Your task to perform on an android device: Go to display settings Image 0: 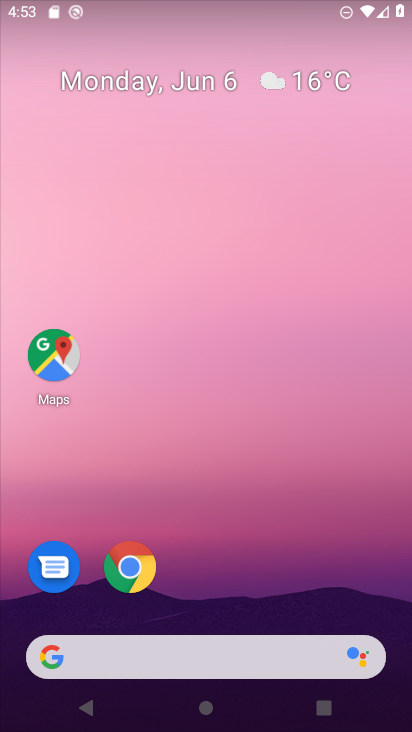
Step 0: drag from (233, 651) to (155, 172)
Your task to perform on an android device: Go to display settings Image 1: 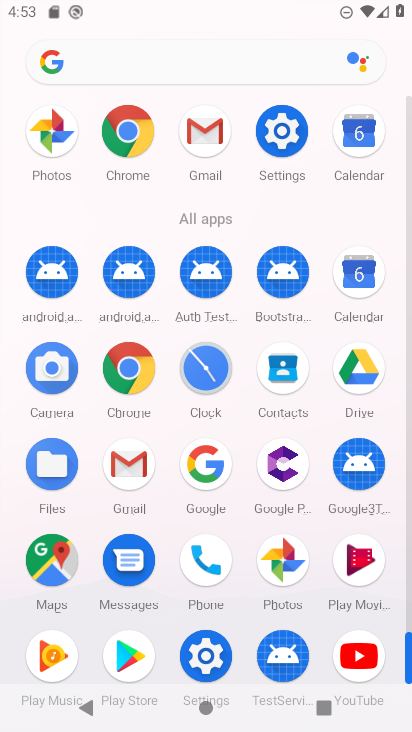
Step 1: click (287, 133)
Your task to perform on an android device: Go to display settings Image 2: 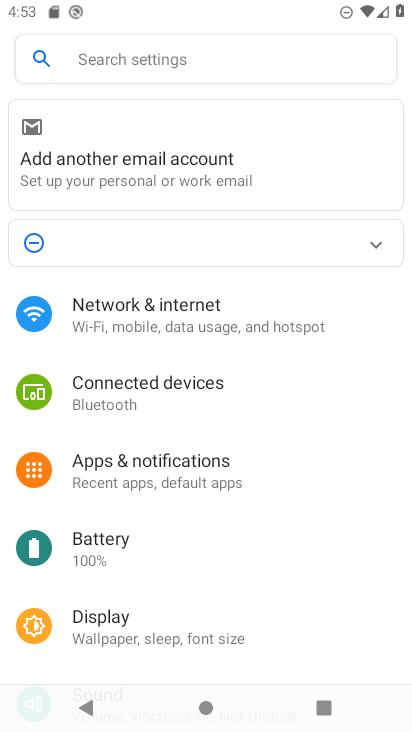
Step 2: drag from (116, 540) to (106, 170)
Your task to perform on an android device: Go to display settings Image 3: 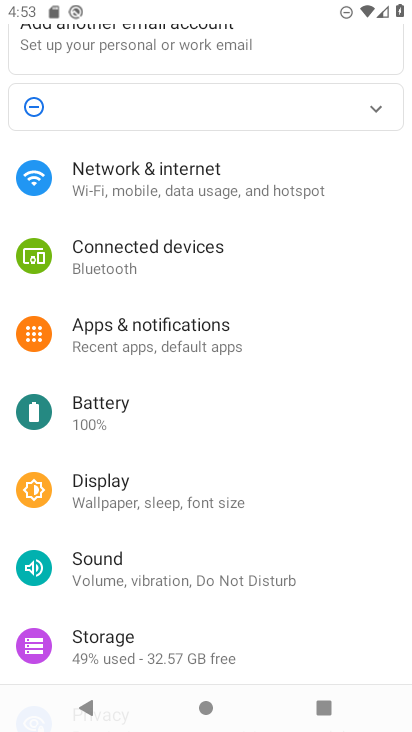
Step 3: drag from (105, 565) to (101, 309)
Your task to perform on an android device: Go to display settings Image 4: 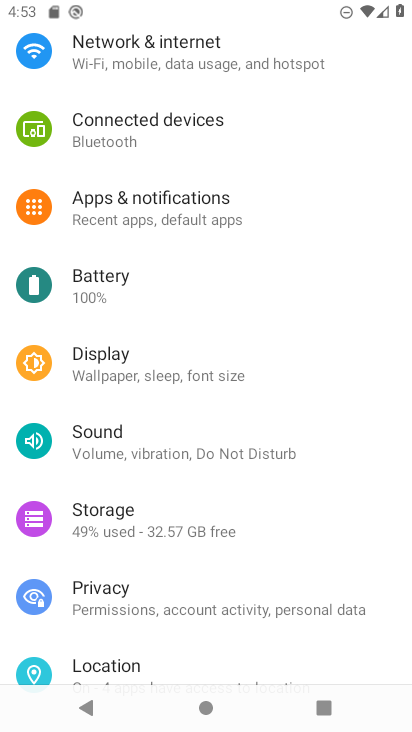
Step 4: drag from (128, 426) to (126, 309)
Your task to perform on an android device: Go to display settings Image 5: 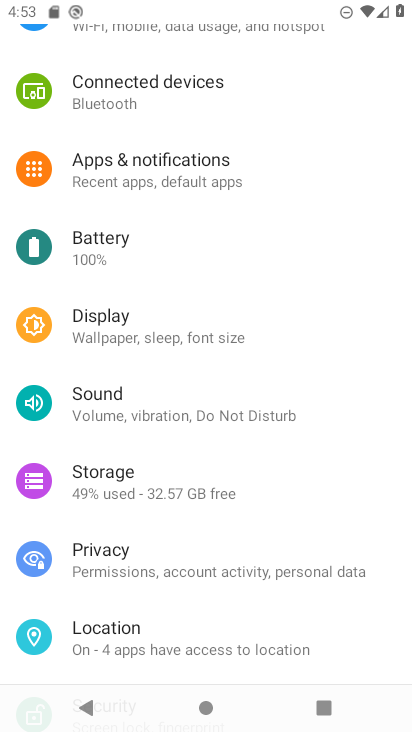
Step 5: click (102, 314)
Your task to perform on an android device: Go to display settings Image 6: 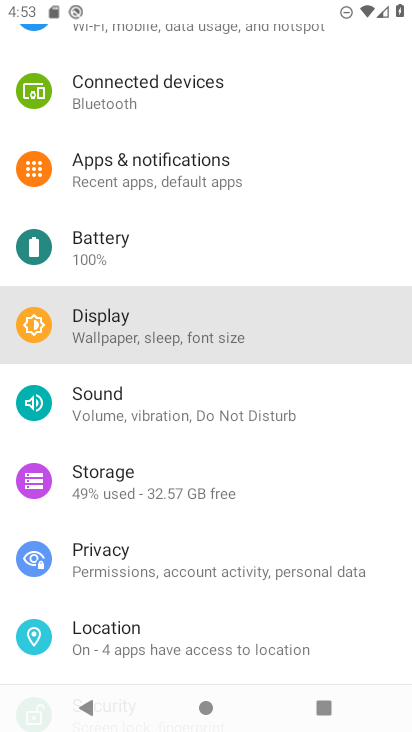
Step 6: click (102, 314)
Your task to perform on an android device: Go to display settings Image 7: 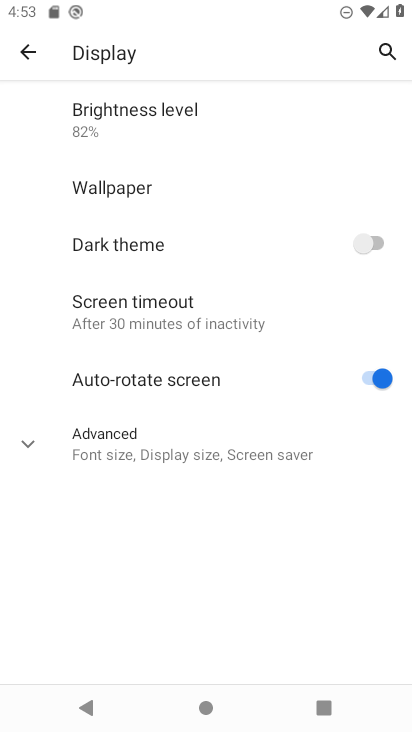
Step 7: task complete